Your task to perform on an android device: What's the weather? Image 0: 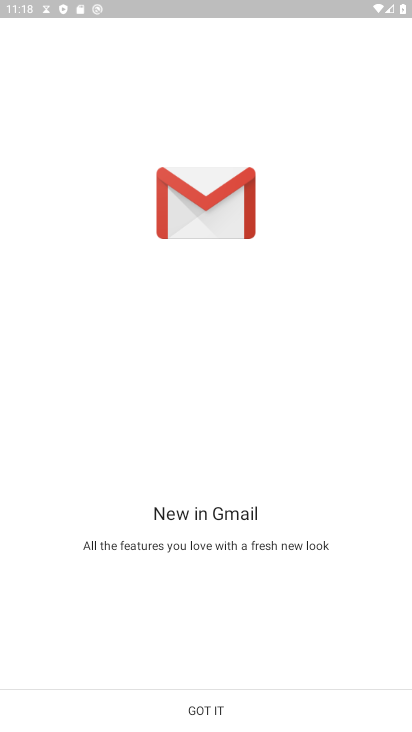
Step 0: press home button
Your task to perform on an android device: What's the weather? Image 1: 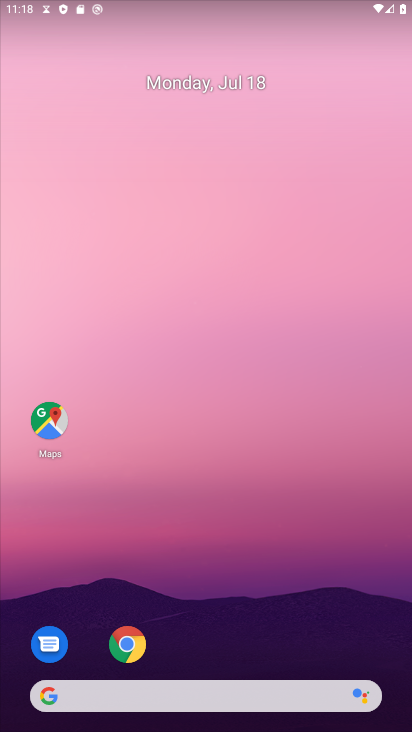
Step 1: drag from (21, 248) to (378, 217)
Your task to perform on an android device: What's the weather? Image 2: 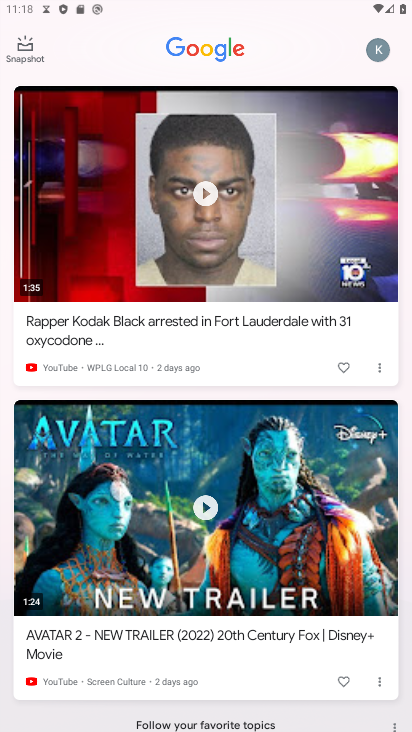
Step 2: press home button
Your task to perform on an android device: What's the weather? Image 3: 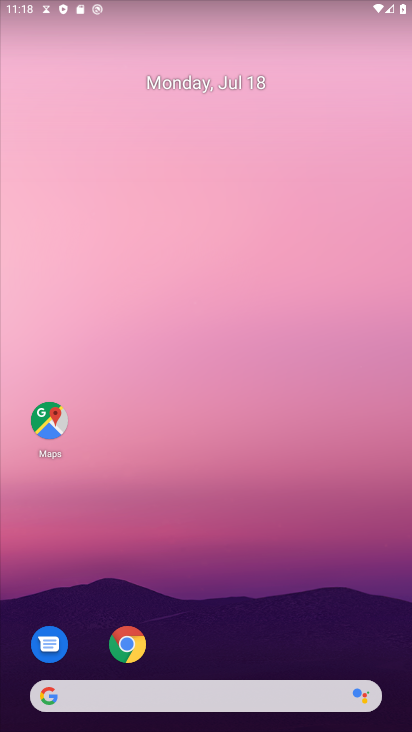
Step 3: drag from (204, 675) to (282, 265)
Your task to perform on an android device: What's the weather? Image 4: 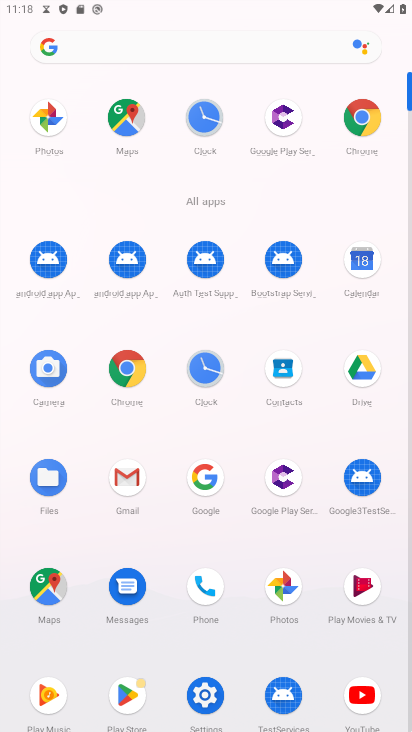
Step 4: click (129, 373)
Your task to perform on an android device: What's the weather? Image 5: 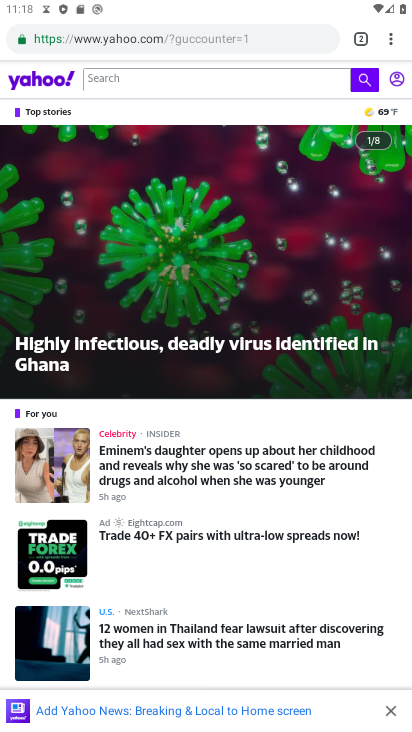
Step 5: drag from (390, 44) to (347, 82)
Your task to perform on an android device: What's the weather? Image 6: 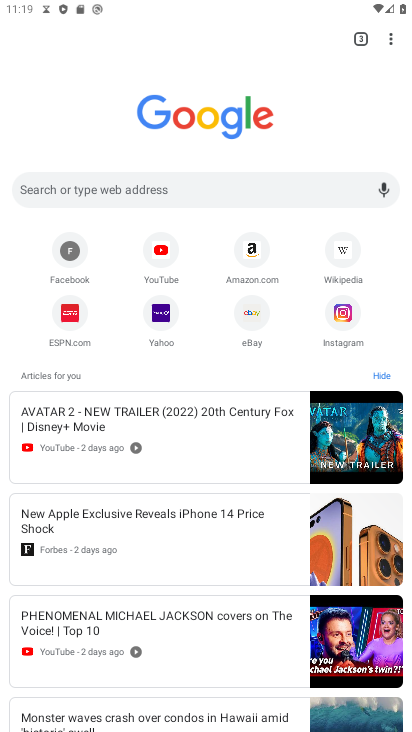
Step 6: click (134, 192)
Your task to perform on an android device: What's the weather? Image 7: 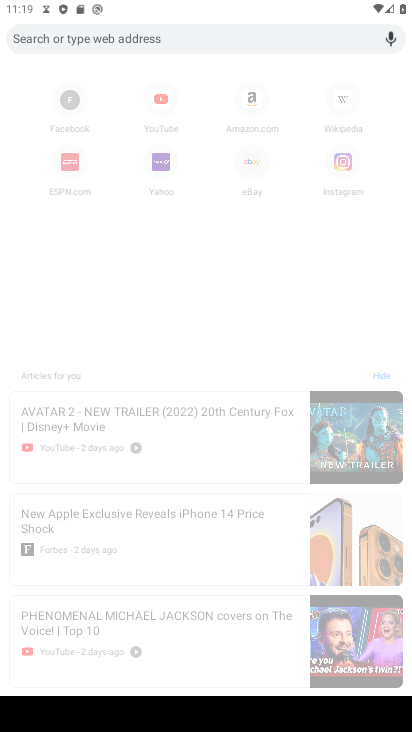
Step 7: type "What's the weather?"
Your task to perform on an android device: What's the weather? Image 8: 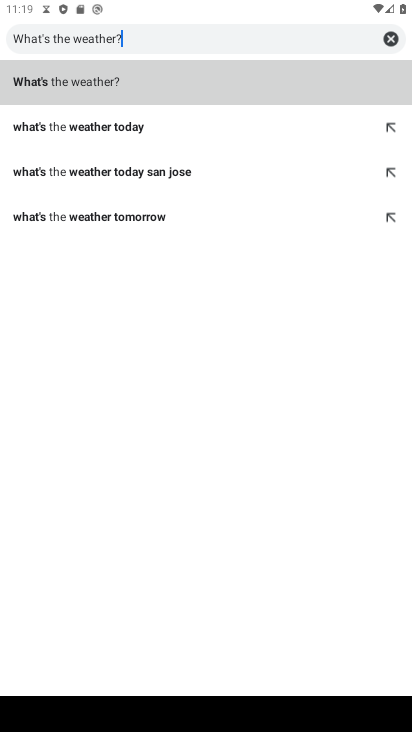
Step 8: type ""
Your task to perform on an android device: What's the weather? Image 9: 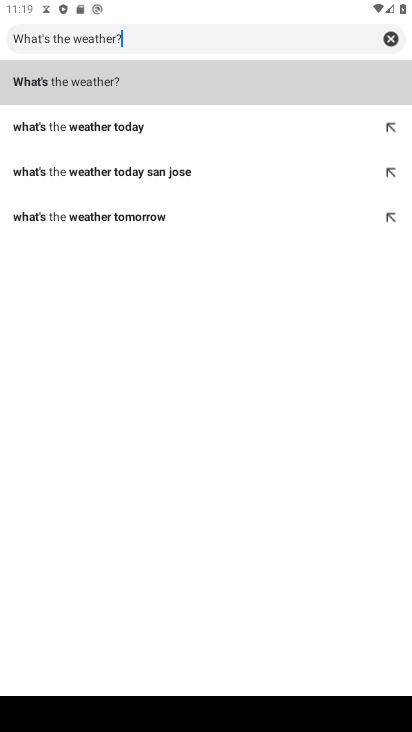
Step 9: click (98, 81)
Your task to perform on an android device: What's the weather? Image 10: 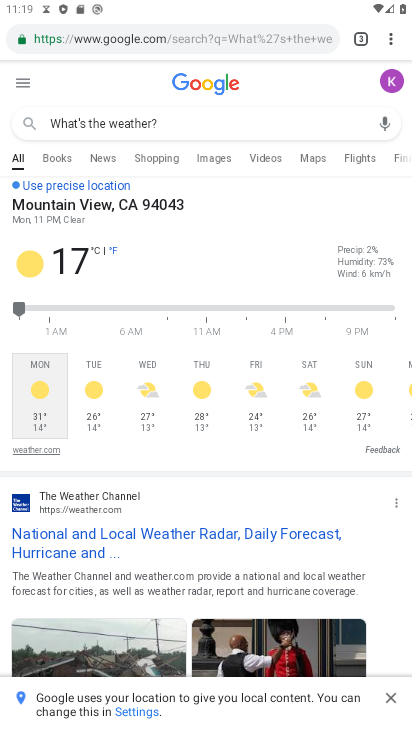
Step 10: task complete